Your task to perform on an android device: turn off notifications in google photos Image 0: 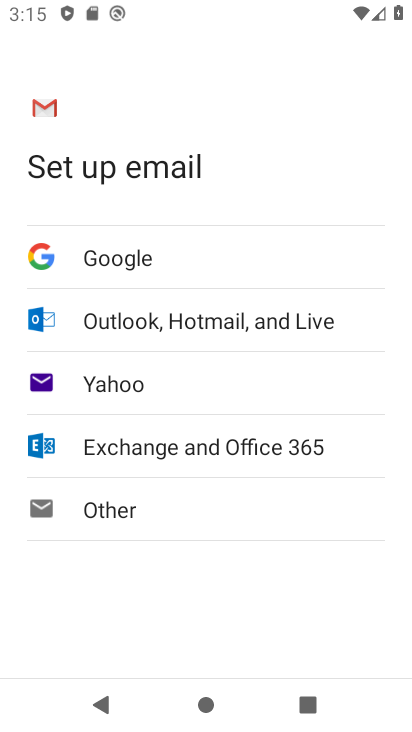
Step 0: press home button
Your task to perform on an android device: turn off notifications in google photos Image 1: 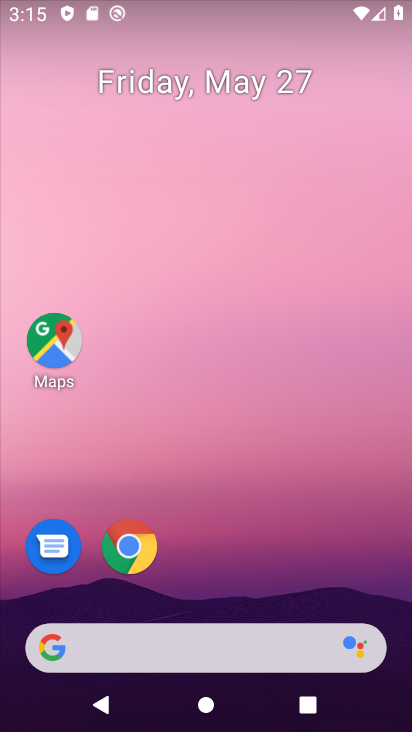
Step 1: drag from (152, 605) to (254, 139)
Your task to perform on an android device: turn off notifications in google photos Image 2: 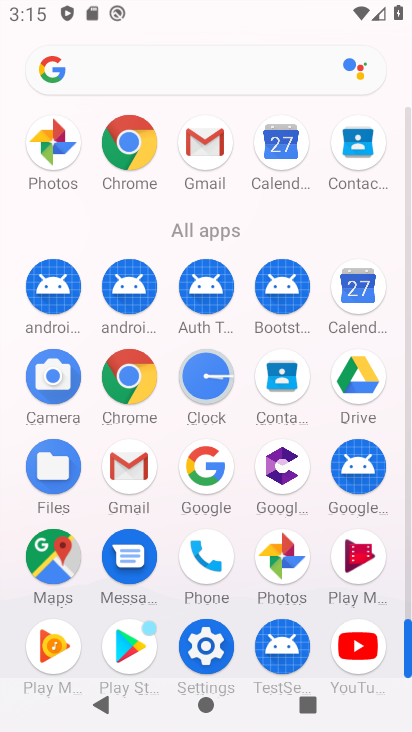
Step 2: click (289, 558)
Your task to perform on an android device: turn off notifications in google photos Image 3: 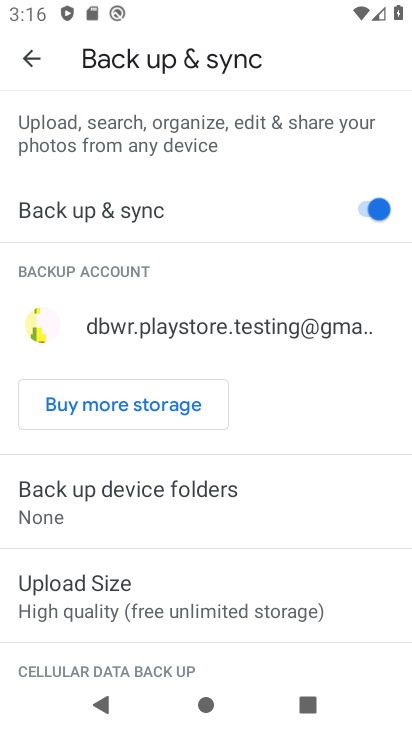
Step 3: click (39, 52)
Your task to perform on an android device: turn off notifications in google photos Image 4: 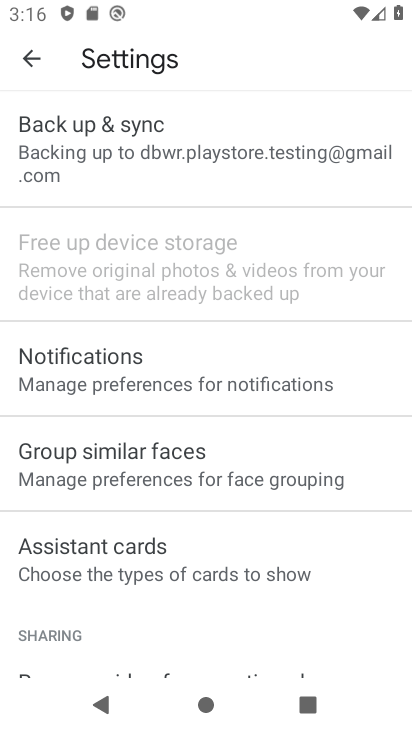
Step 4: click (151, 367)
Your task to perform on an android device: turn off notifications in google photos Image 5: 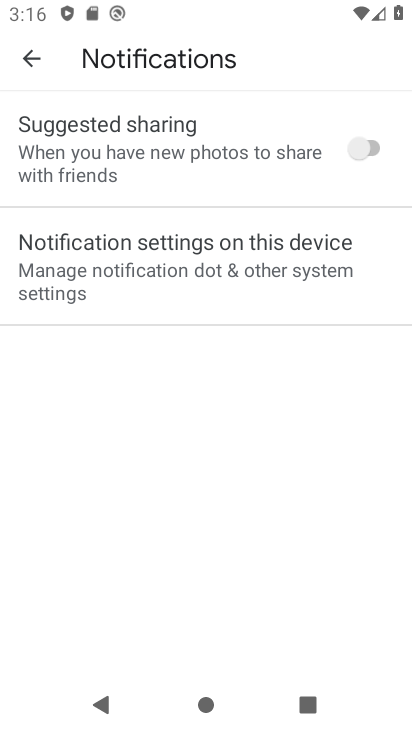
Step 5: click (221, 234)
Your task to perform on an android device: turn off notifications in google photos Image 6: 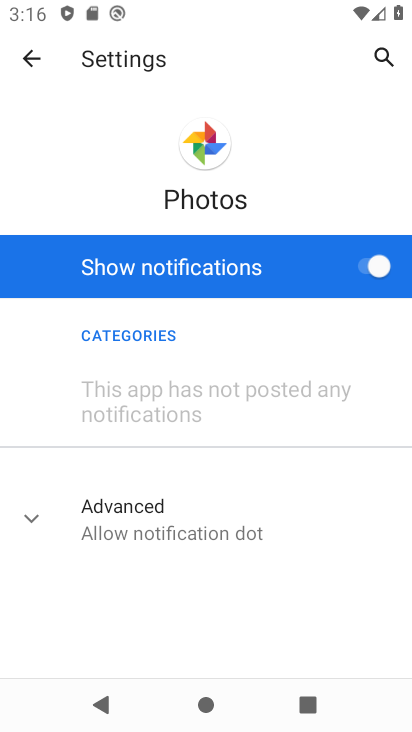
Step 6: click (370, 268)
Your task to perform on an android device: turn off notifications in google photos Image 7: 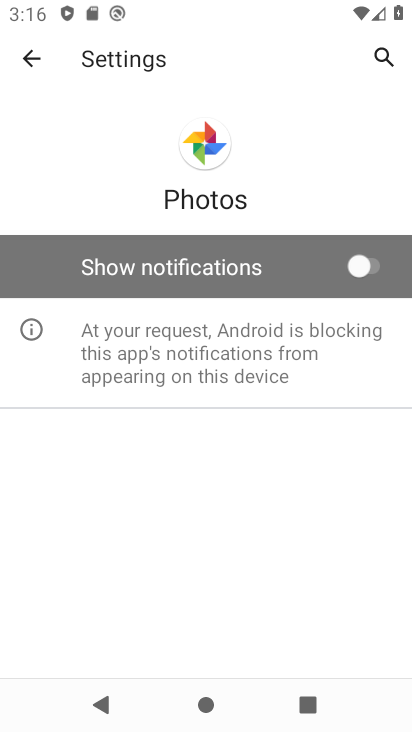
Step 7: task complete